Your task to perform on an android device: Set the phone to "Do not disturb". Image 0: 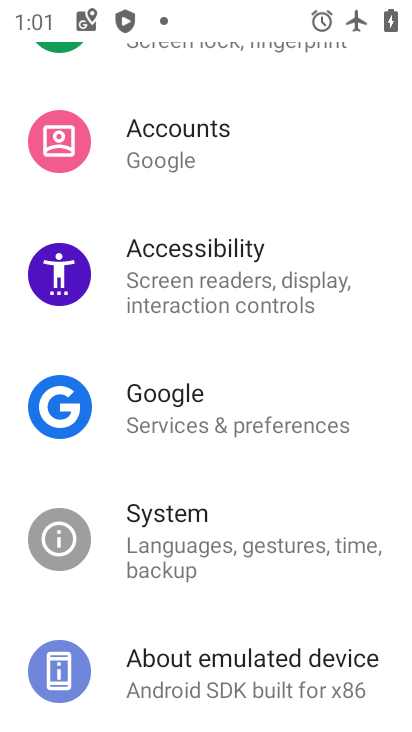
Step 0: drag from (297, 241) to (252, 636)
Your task to perform on an android device: Set the phone to "Do not disturb". Image 1: 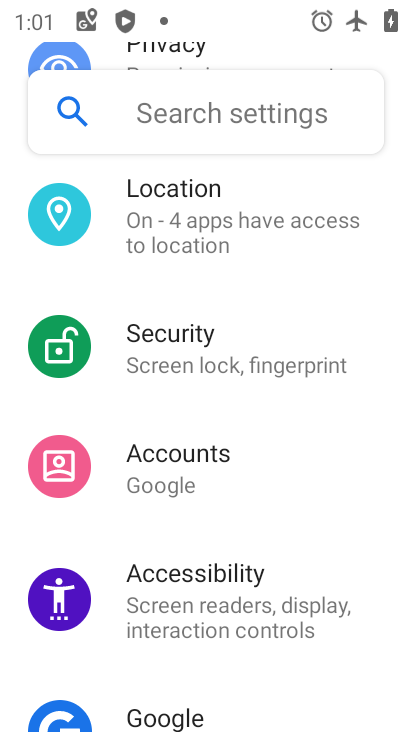
Step 1: drag from (299, 359) to (243, 724)
Your task to perform on an android device: Set the phone to "Do not disturb". Image 2: 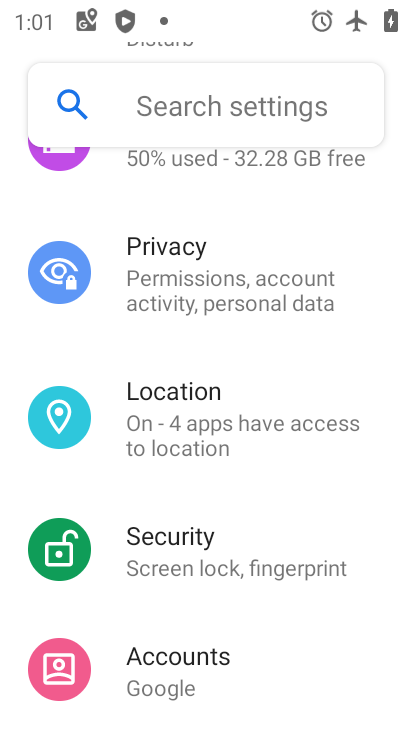
Step 2: drag from (350, 213) to (278, 603)
Your task to perform on an android device: Set the phone to "Do not disturb". Image 3: 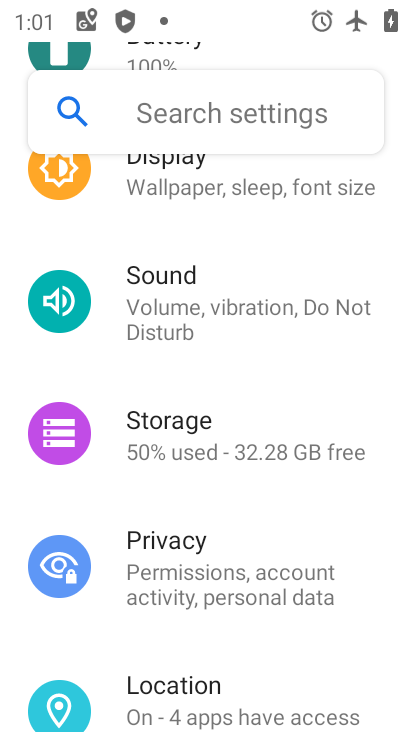
Step 3: click (246, 315)
Your task to perform on an android device: Set the phone to "Do not disturb". Image 4: 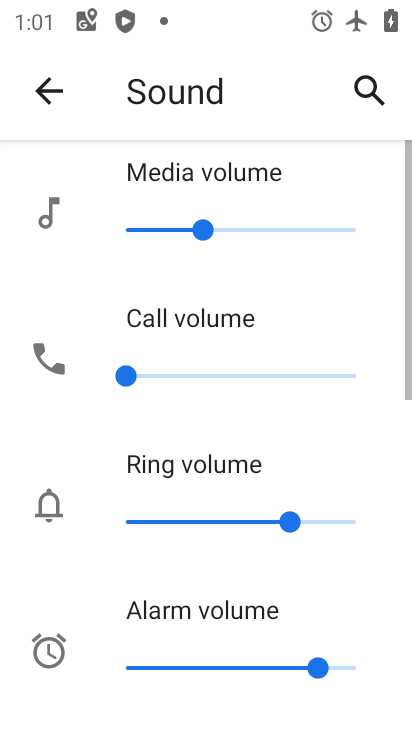
Step 4: drag from (263, 602) to (283, 150)
Your task to perform on an android device: Set the phone to "Do not disturb". Image 5: 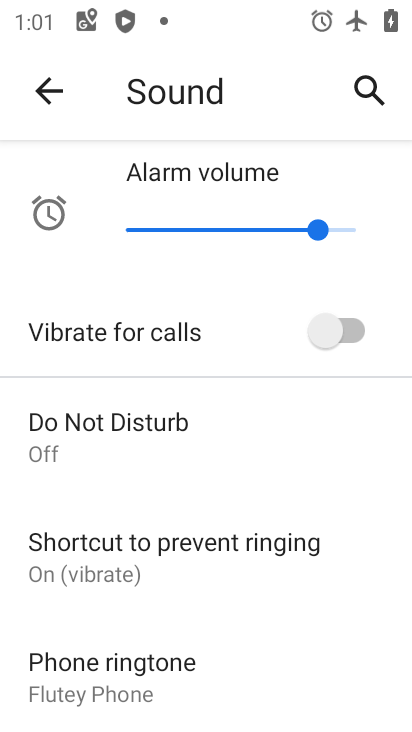
Step 5: click (214, 445)
Your task to perform on an android device: Set the phone to "Do not disturb". Image 6: 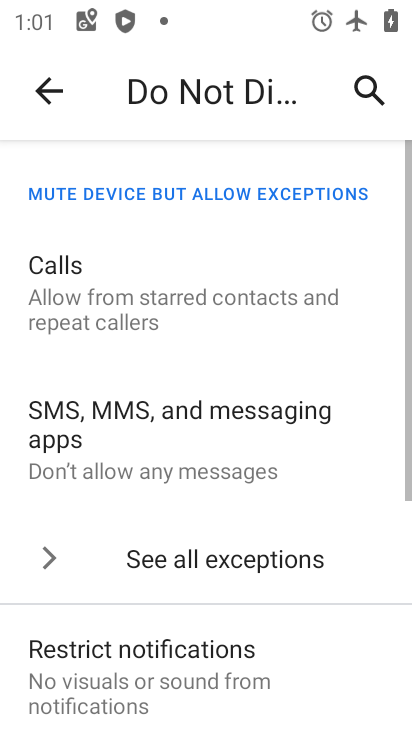
Step 6: drag from (182, 638) to (255, 203)
Your task to perform on an android device: Set the phone to "Do not disturb". Image 7: 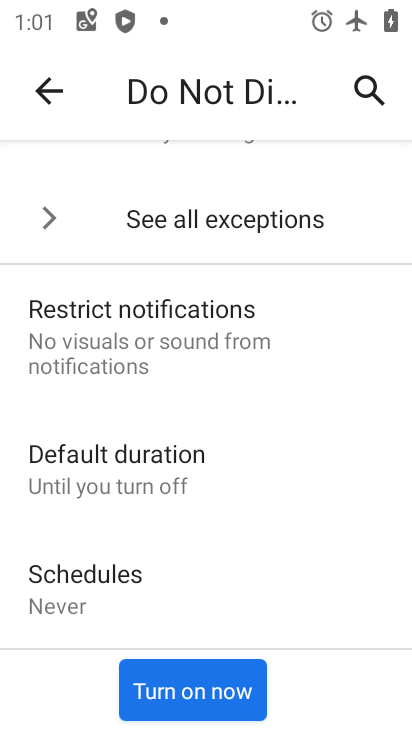
Step 7: click (145, 690)
Your task to perform on an android device: Set the phone to "Do not disturb". Image 8: 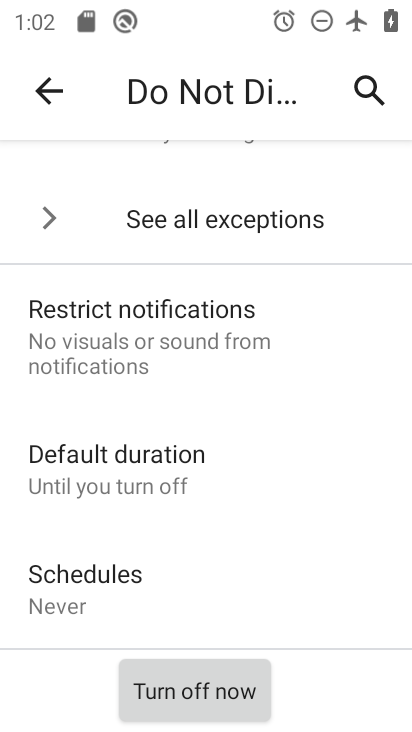
Step 8: task complete